Your task to perform on an android device: turn pop-ups on in chrome Image 0: 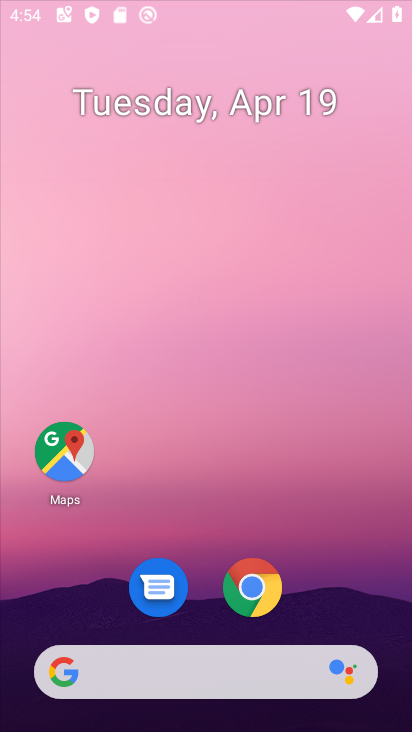
Step 0: drag from (358, 545) to (277, 48)
Your task to perform on an android device: turn pop-ups on in chrome Image 1: 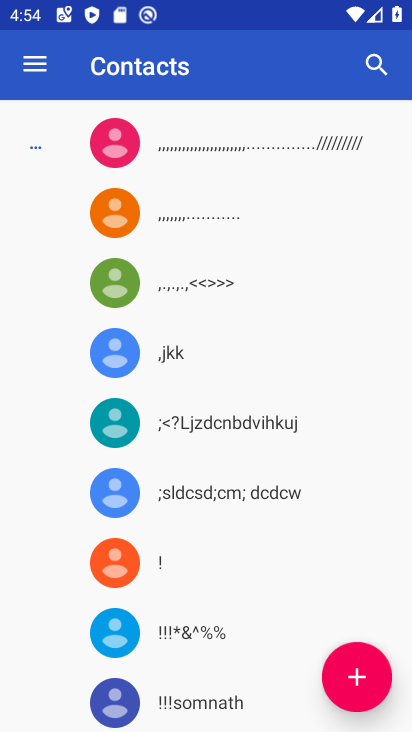
Step 1: press back button
Your task to perform on an android device: turn pop-ups on in chrome Image 2: 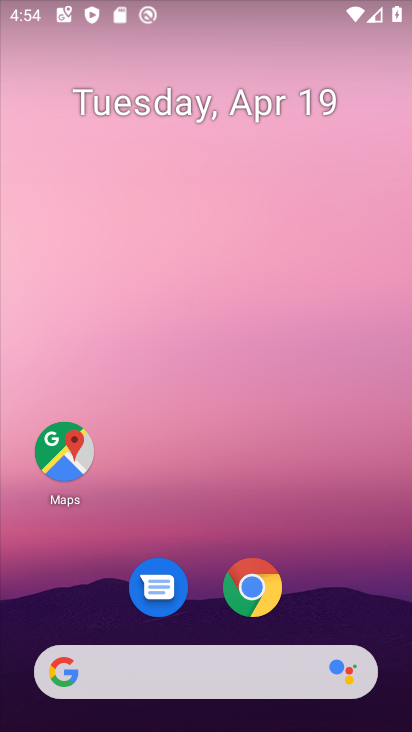
Step 2: click (249, 583)
Your task to perform on an android device: turn pop-ups on in chrome Image 3: 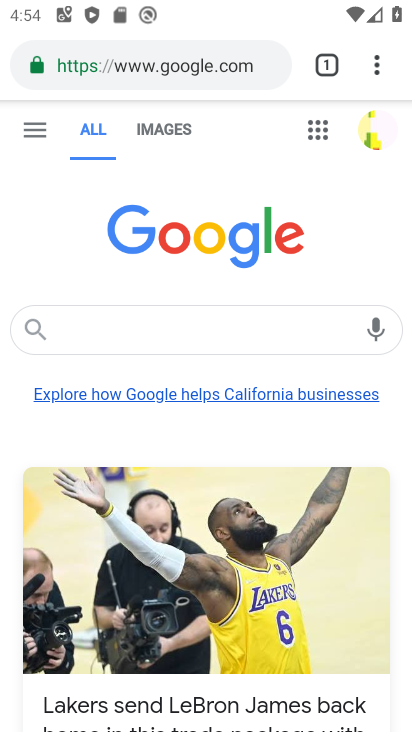
Step 3: drag from (376, 71) to (203, 623)
Your task to perform on an android device: turn pop-ups on in chrome Image 4: 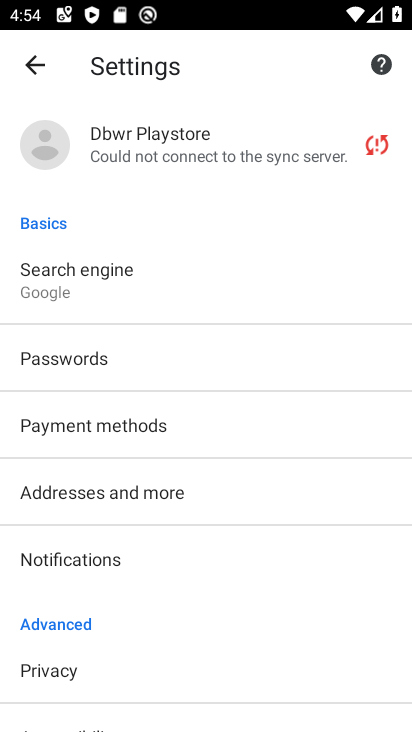
Step 4: drag from (200, 538) to (220, 255)
Your task to perform on an android device: turn pop-ups on in chrome Image 5: 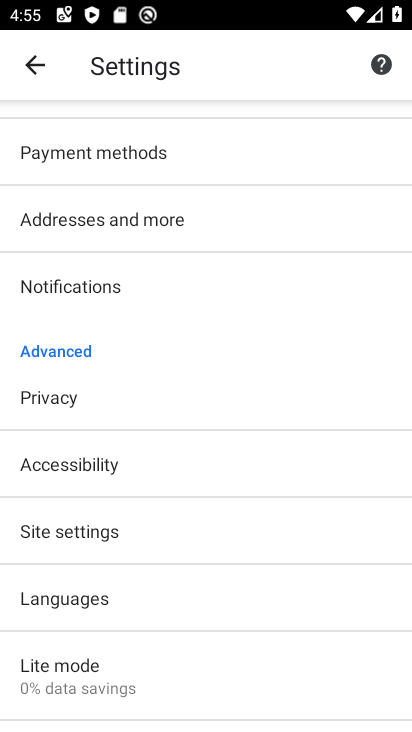
Step 5: drag from (270, 483) to (279, 182)
Your task to perform on an android device: turn pop-ups on in chrome Image 6: 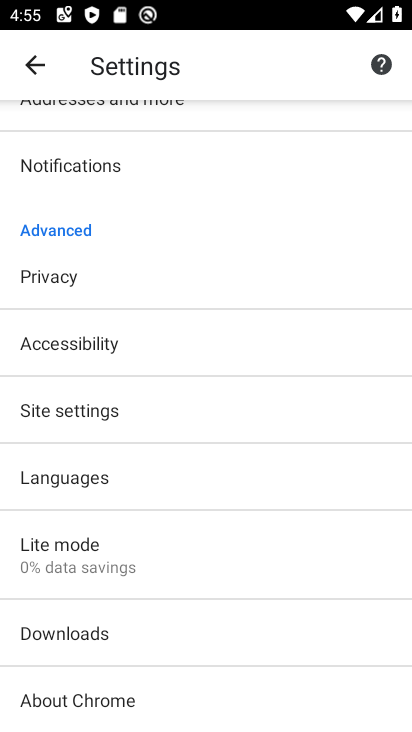
Step 6: click (149, 406)
Your task to perform on an android device: turn pop-ups on in chrome Image 7: 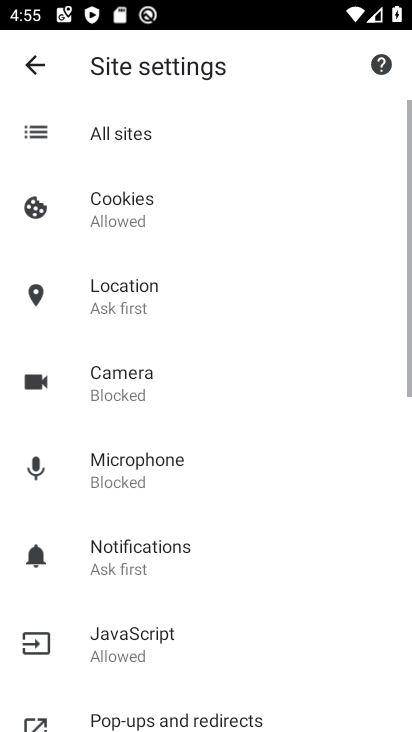
Step 7: drag from (217, 544) to (266, 177)
Your task to perform on an android device: turn pop-ups on in chrome Image 8: 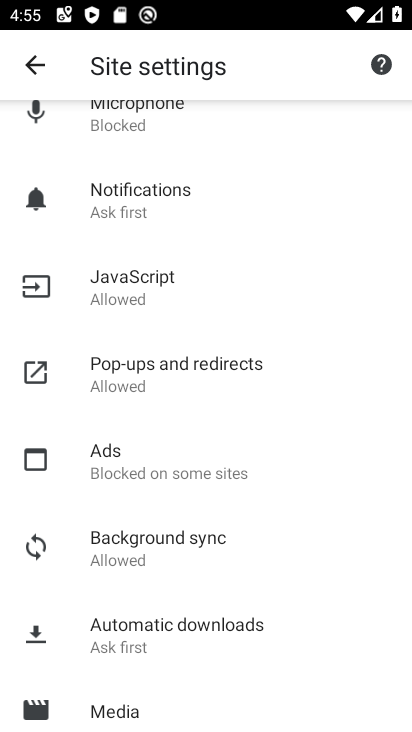
Step 8: click (204, 394)
Your task to perform on an android device: turn pop-ups on in chrome Image 9: 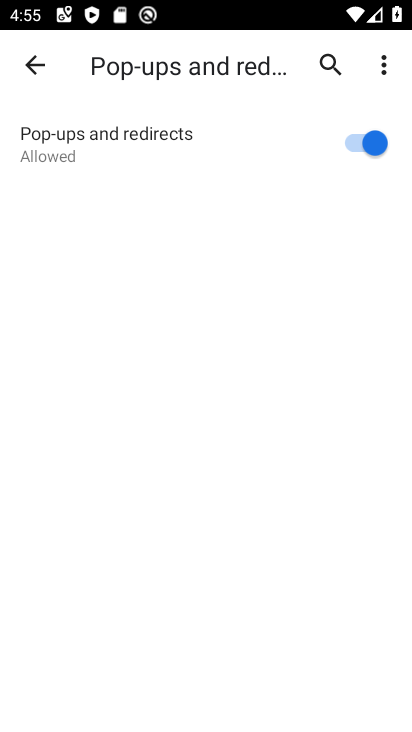
Step 9: task complete